Your task to perform on an android device: manage bookmarks in the chrome app Image 0: 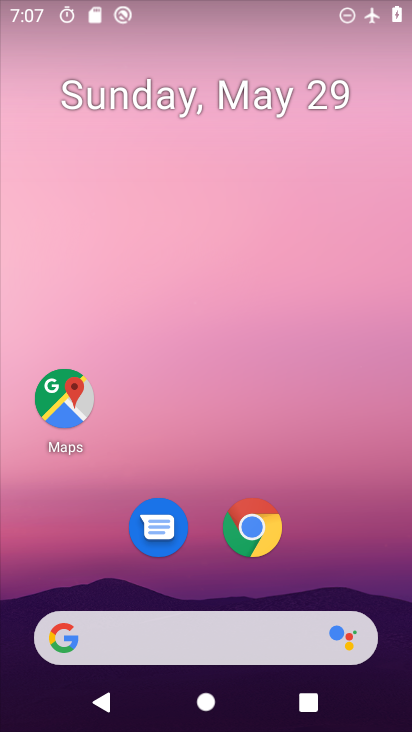
Step 0: drag from (379, 651) to (284, 25)
Your task to perform on an android device: manage bookmarks in the chrome app Image 1: 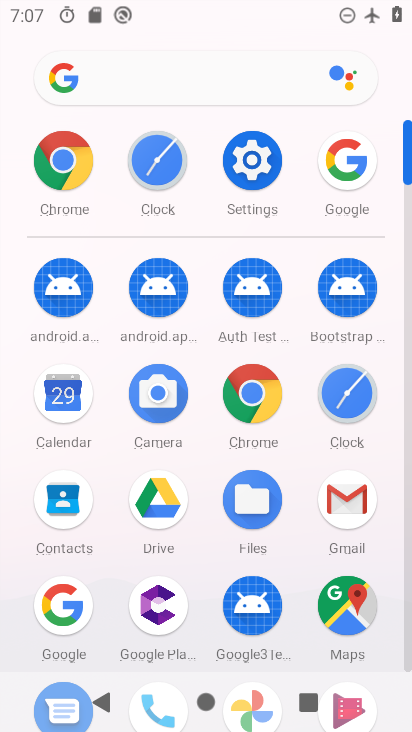
Step 1: click (67, 173)
Your task to perform on an android device: manage bookmarks in the chrome app Image 2: 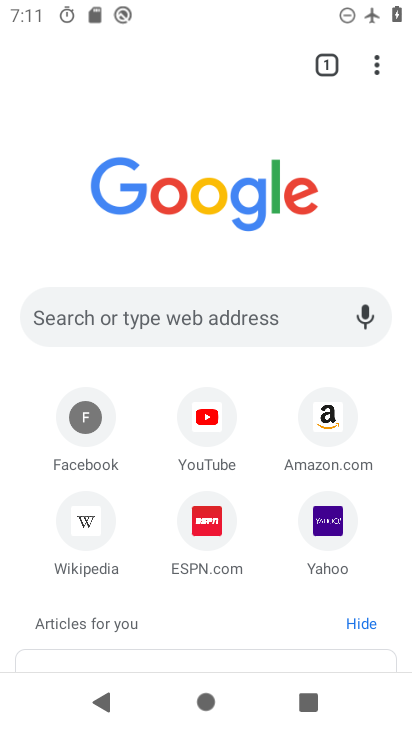
Step 2: task complete